Your task to perform on an android device: What's the weather? Image 0: 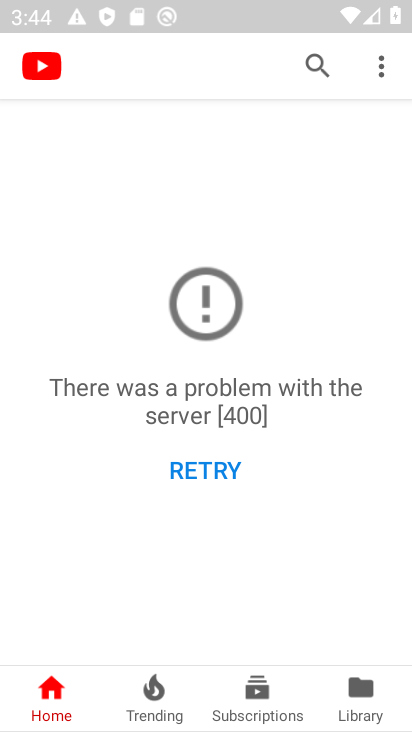
Step 0: press back button
Your task to perform on an android device: What's the weather? Image 1: 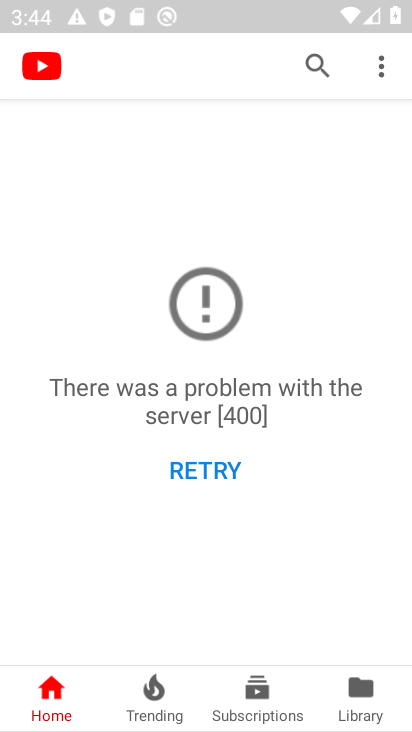
Step 1: press back button
Your task to perform on an android device: What's the weather? Image 2: 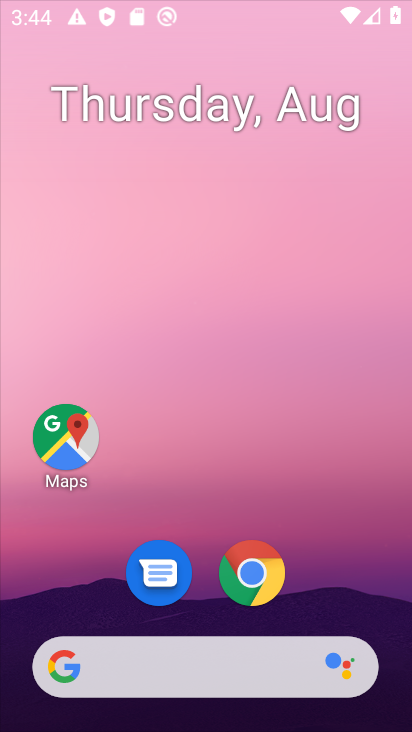
Step 2: press back button
Your task to perform on an android device: What's the weather? Image 3: 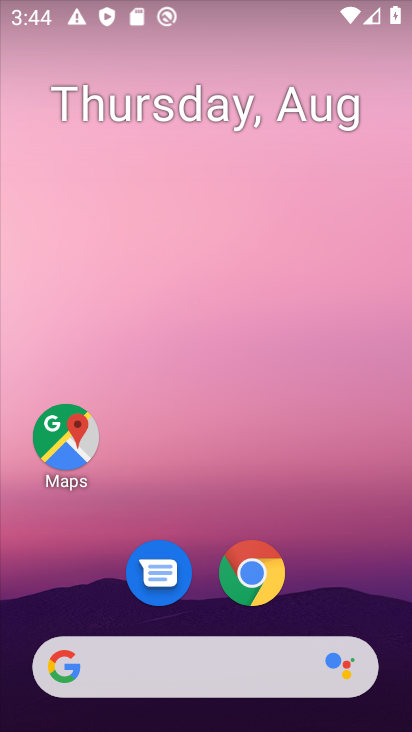
Step 3: press home button
Your task to perform on an android device: What's the weather? Image 4: 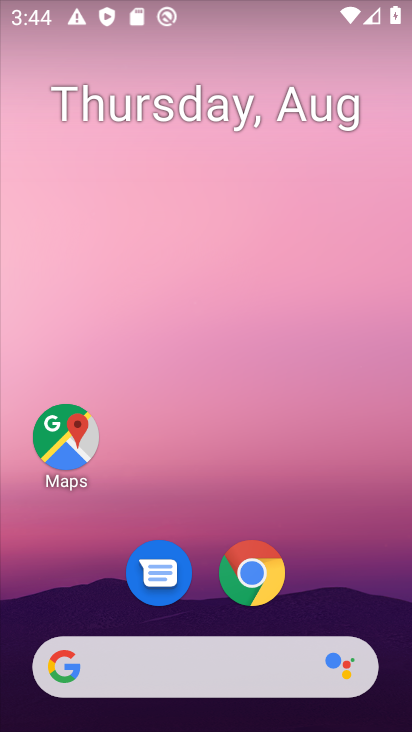
Step 4: press back button
Your task to perform on an android device: What's the weather? Image 5: 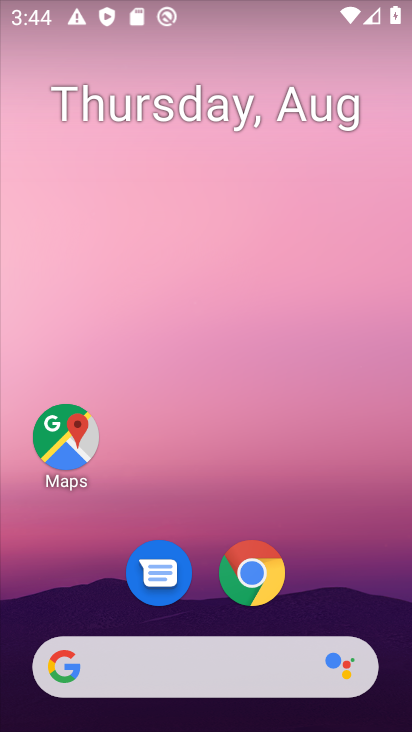
Step 5: drag from (179, 259) to (179, 179)
Your task to perform on an android device: What's the weather? Image 6: 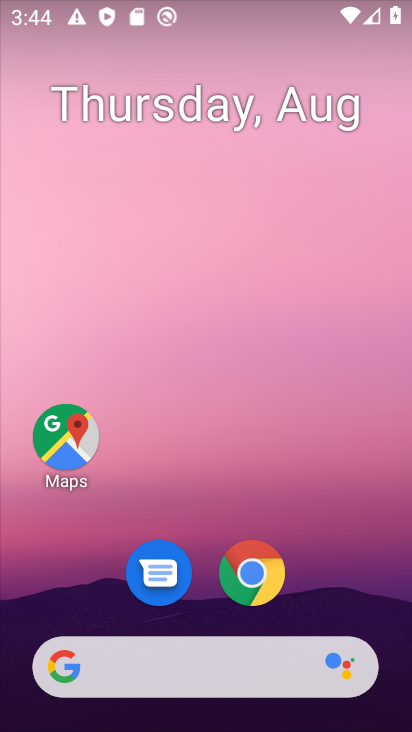
Step 6: drag from (188, 605) to (155, 187)
Your task to perform on an android device: What's the weather? Image 7: 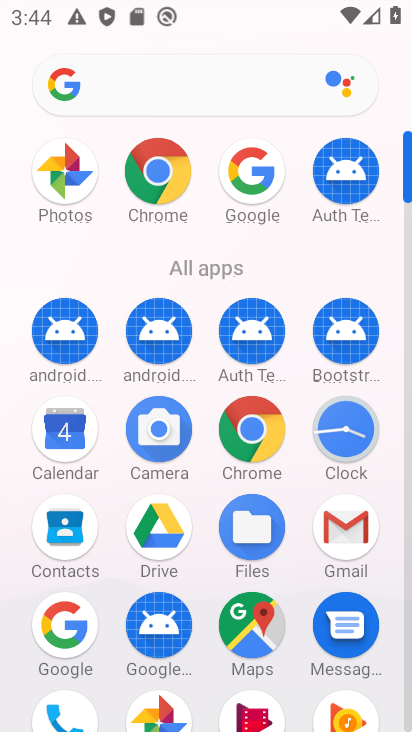
Step 7: click (157, 175)
Your task to perform on an android device: What's the weather? Image 8: 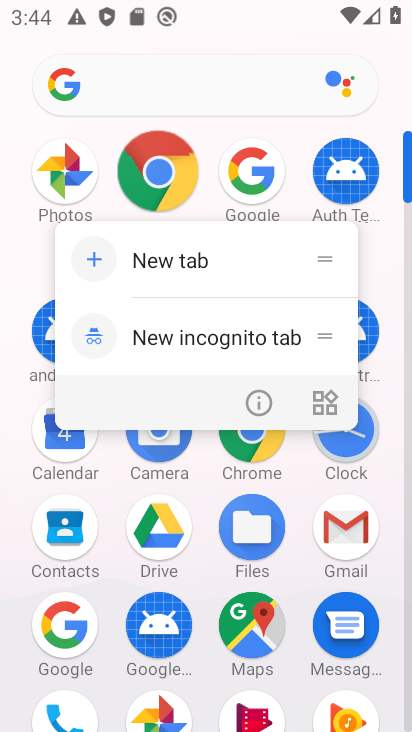
Step 8: click (158, 173)
Your task to perform on an android device: What's the weather? Image 9: 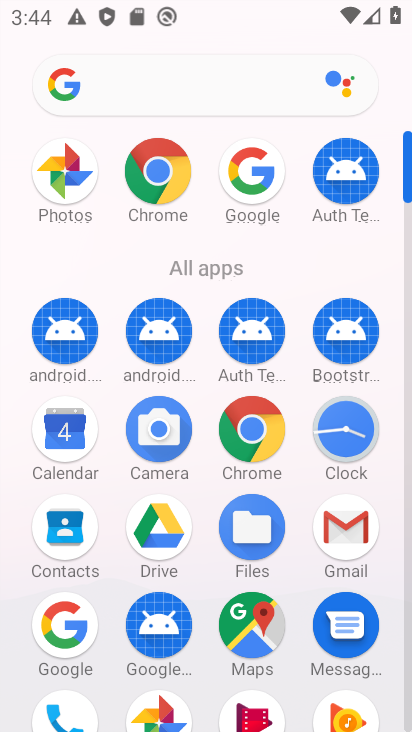
Step 9: click (177, 252)
Your task to perform on an android device: What's the weather? Image 10: 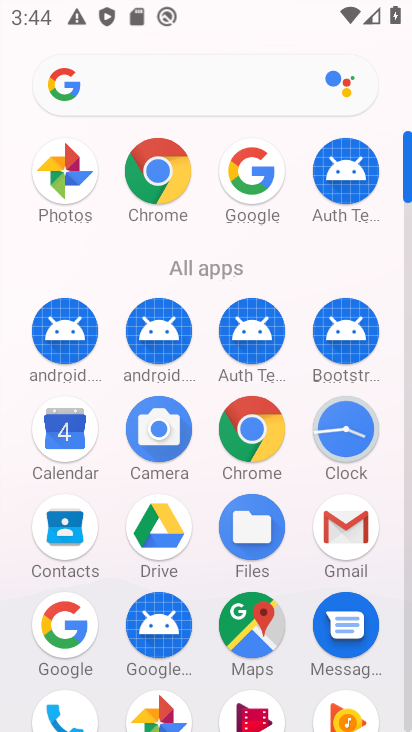
Step 10: click (159, 157)
Your task to perform on an android device: What's the weather? Image 11: 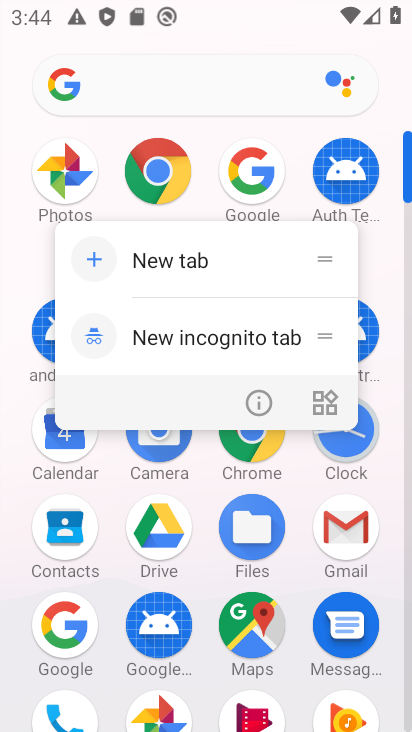
Step 11: click (191, 258)
Your task to perform on an android device: What's the weather? Image 12: 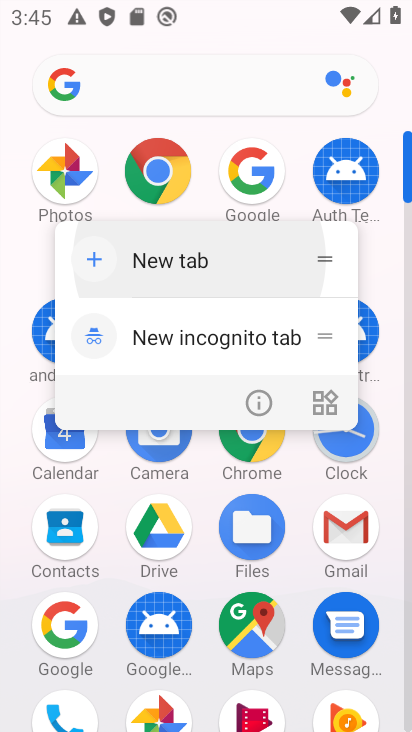
Step 12: click (191, 258)
Your task to perform on an android device: What's the weather? Image 13: 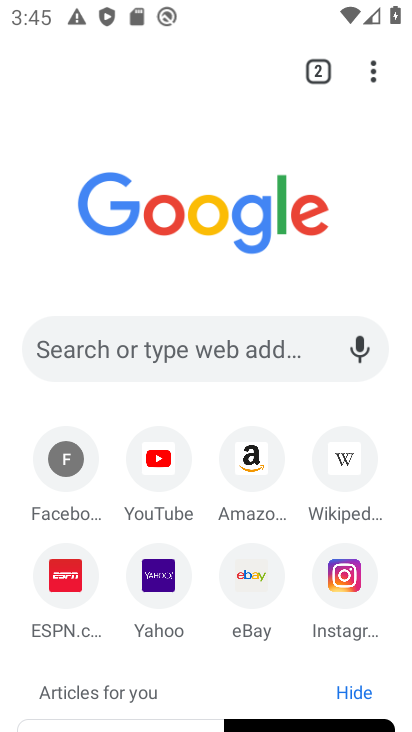
Step 13: click (128, 359)
Your task to perform on an android device: What's the weather? Image 14: 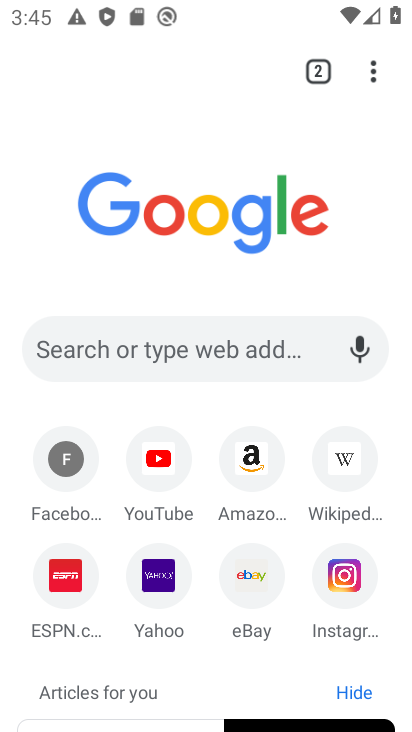
Step 14: click (128, 359)
Your task to perform on an android device: What's the weather? Image 15: 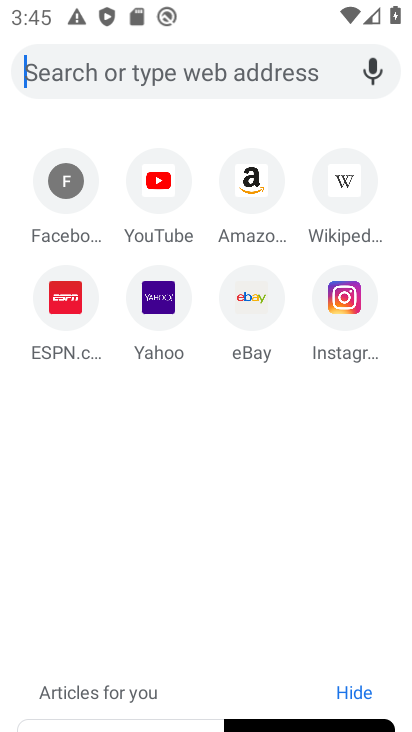
Step 15: click (128, 359)
Your task to perform on an android device: What's the weather? Image 16: 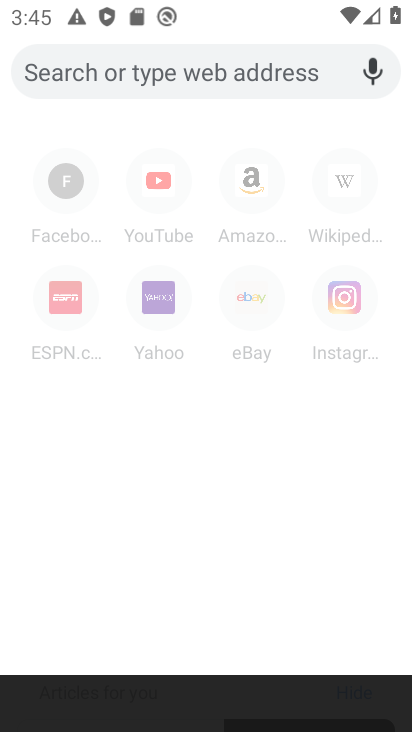
Step 16: click (129, 359)
Your task to perform on an android device: What's the weather? Image 17: 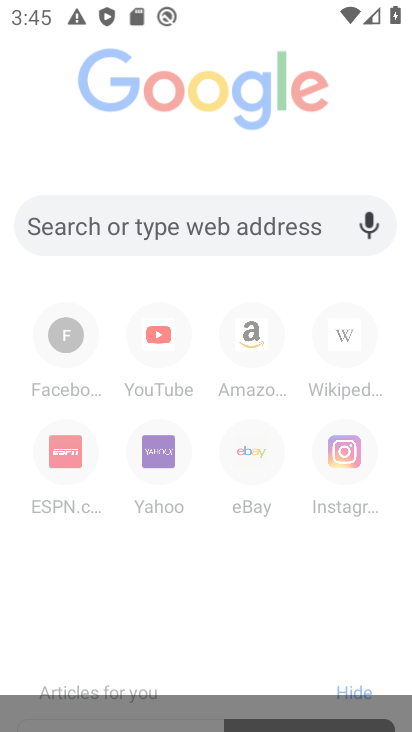
Step 17: click (129, 359)
Your task to perform on an android device: What's the weather? Image 18: 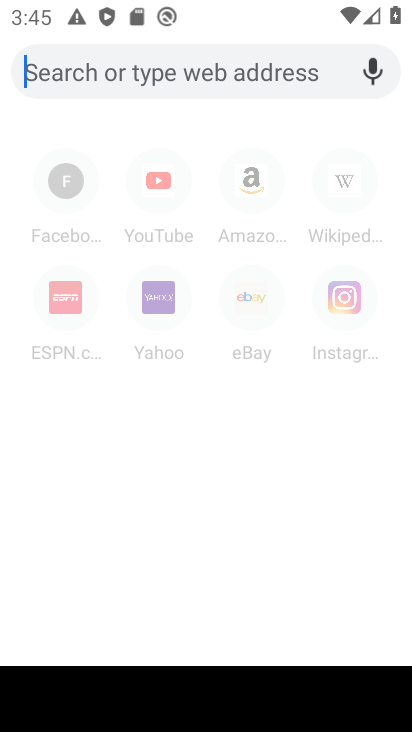
Step 18: type "weather"
Your task to perform on an android device: What's the weather? Image 19: 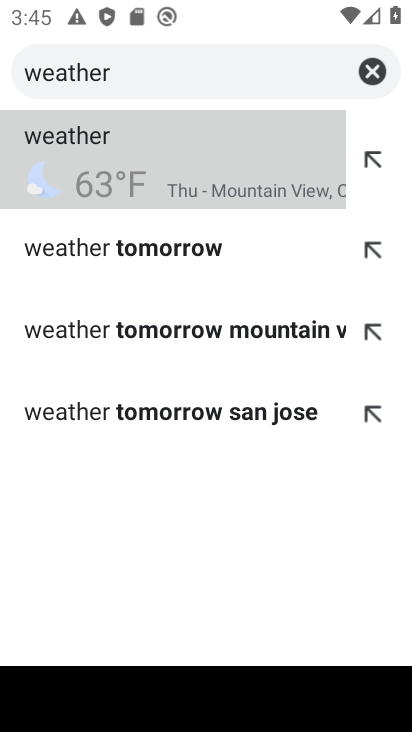
Step 19: click (148, 249)
Your task to perform on an android device: What's the weather? Image 20: 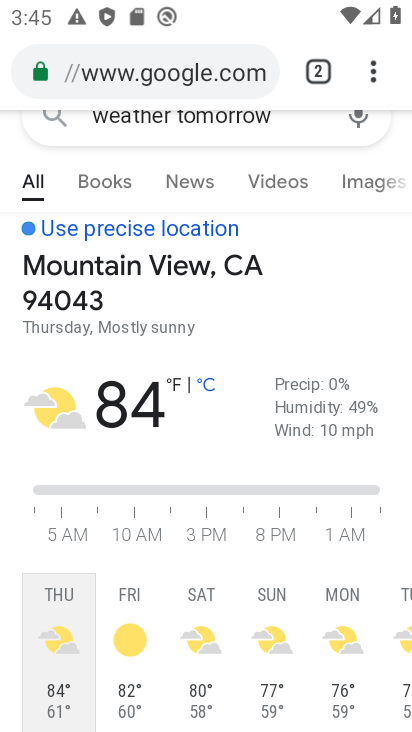
Step 20: task complete